Your task to perform on an android device: open a new tab in the chrome app Image 0: 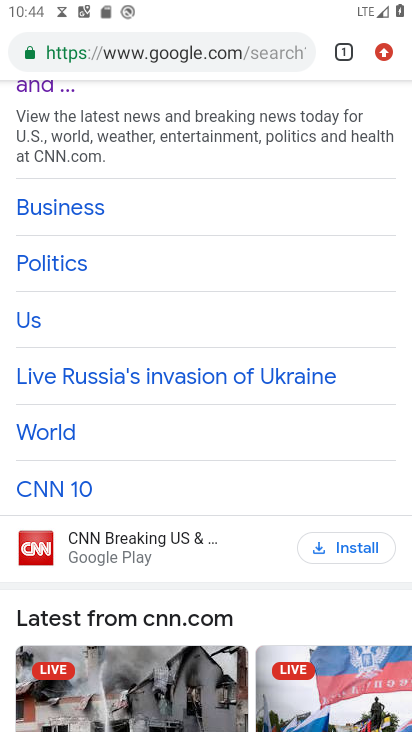
Step 0: press home button
Your task to perform on an android device: open a new tab in the chrome app Image 1: 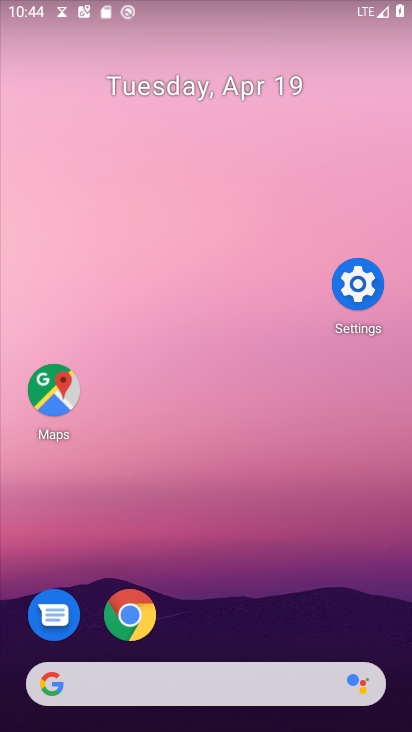
Step 1: click (125, 617)
Your task to perform on an android device: open a new tab in the chrome app Image 2: 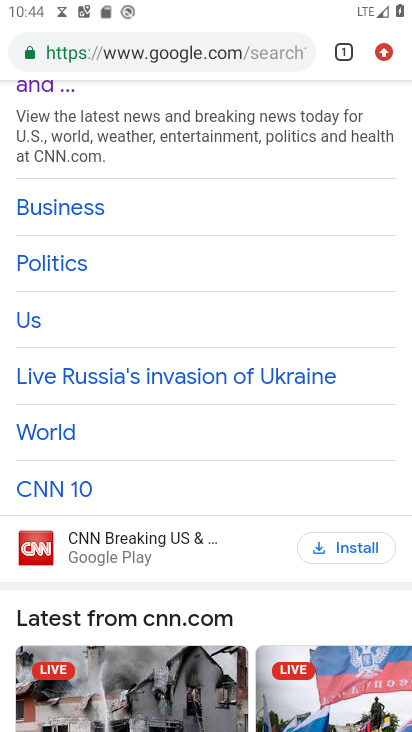
Step 2: click (343, 45)
Your task to perform on an android device: open a new tab in the chrome app Image 3: 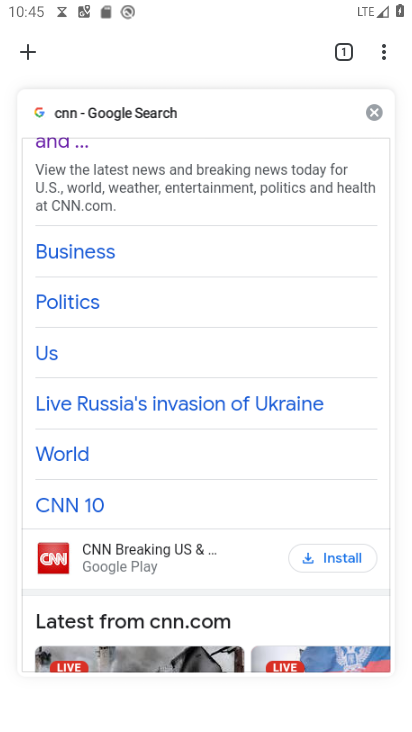
Step 3: click (34, 56)
Your task to perform on an android device: open a new tab in the chrome app Image 4: 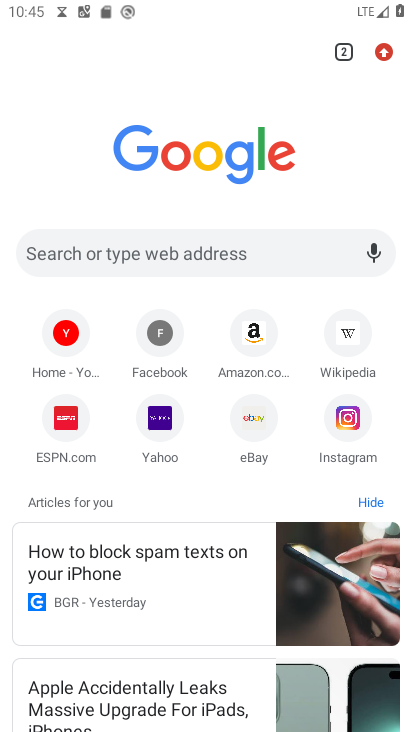
Step 4: task complete